Your task to perform on an android device: Open battery settings Image 0: 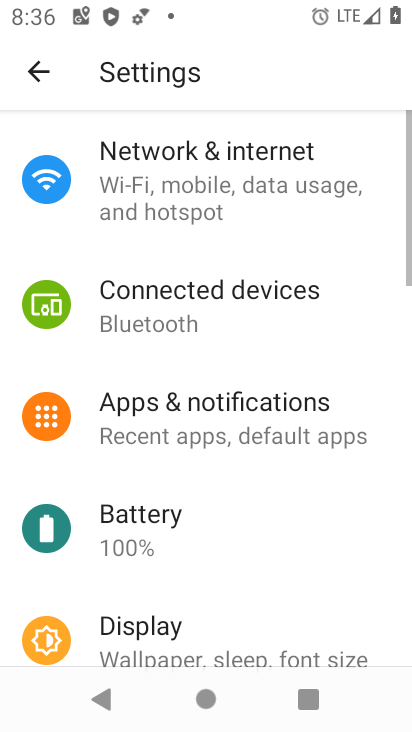
Step 0: press home button
Your task to perform on an android device: Open battery settings Image 1: 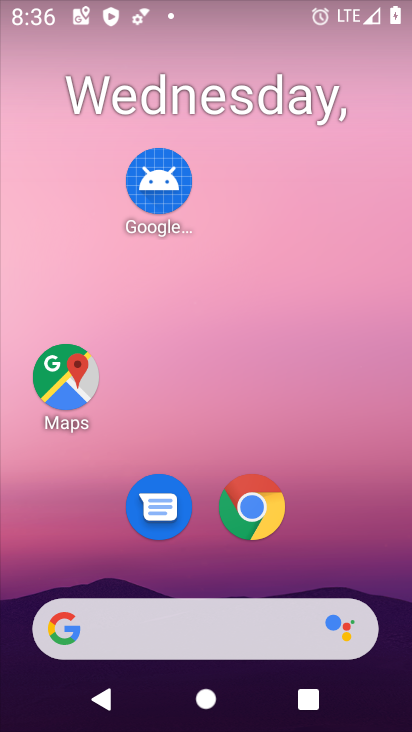
Step 1: drag from (207, 581) to (228, 16)
Your task to perform on an android device: Open battery settings Image 2: 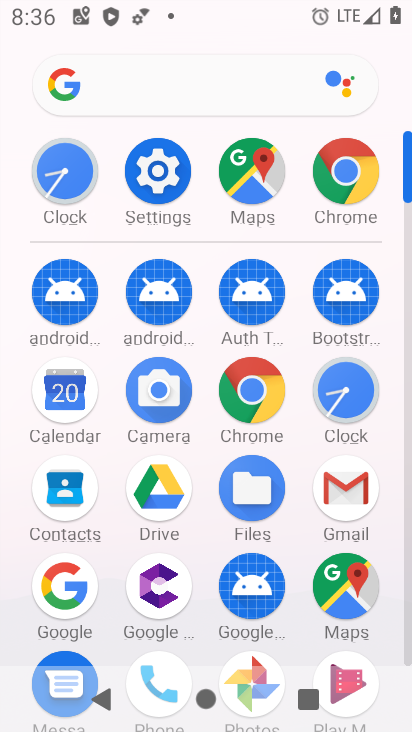
Step 2: click (165, 187)
Your task to perform on an android device: Open battery settings Image 3: 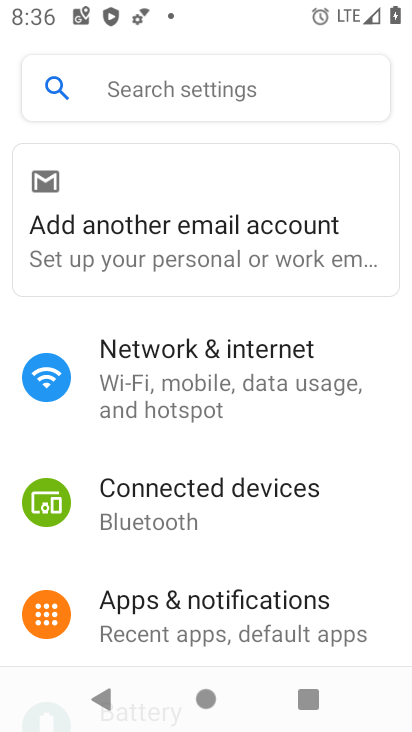
Step 3: drag from (213, 516) to (154, 103)
Your task to perform on an android device: Open battery settings Image 4: 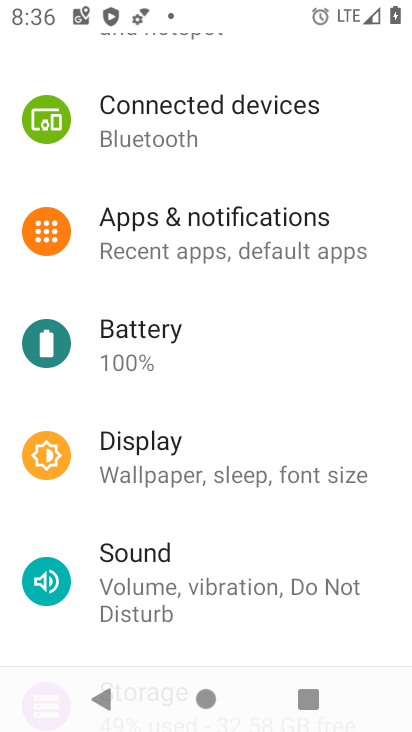
Step 4: click (136, 341)
Your task to perform on an android device: Open battery settings Image 5: 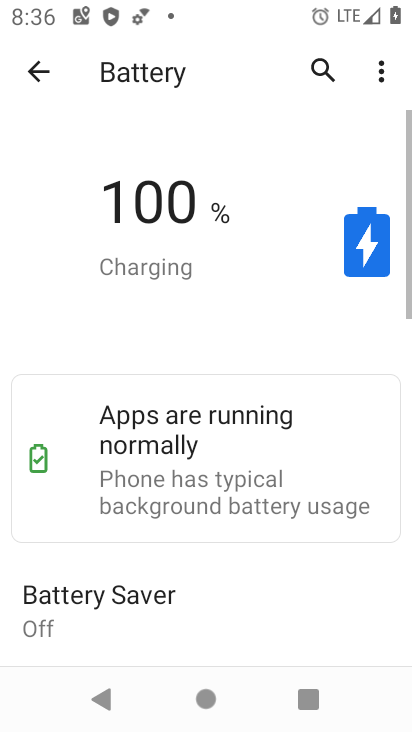
Step 5: task complete